Your task to perform on an android device: change your default location settings in chrome Image 0: 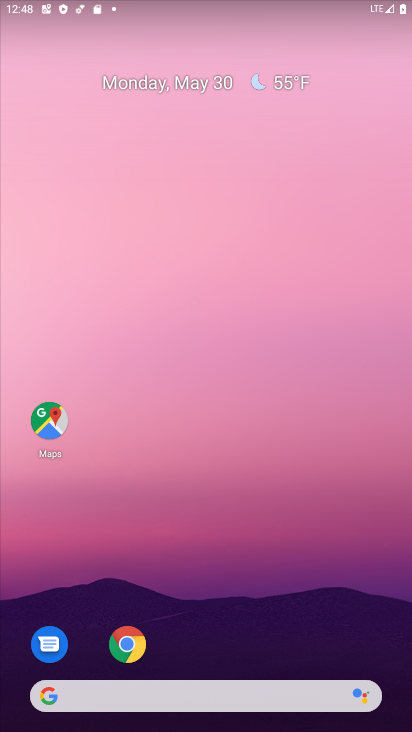
Step 0: click (128, 648)
Your task to perform on an android device: change your default location settings in chrome Image 1: 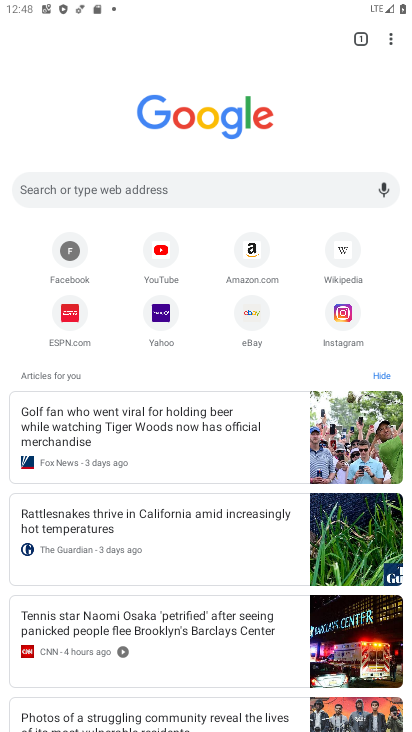
Step 1: task complete